Your task to perform on an android device: Go to CNN.com Image 0: 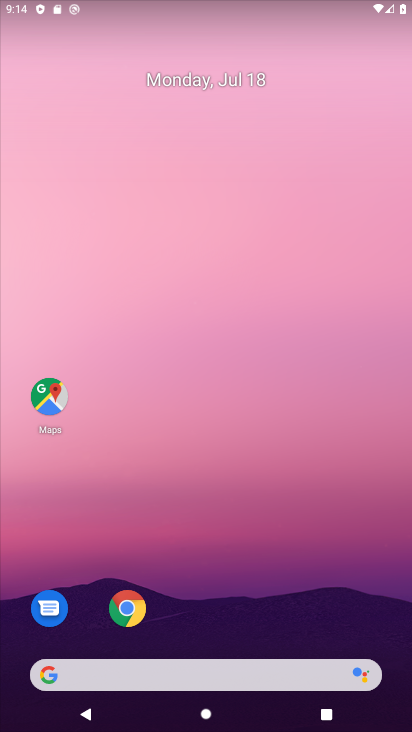
Step 0: click (119, 607)
Your task to perform on an android device: Go to CNN.com Image 1: 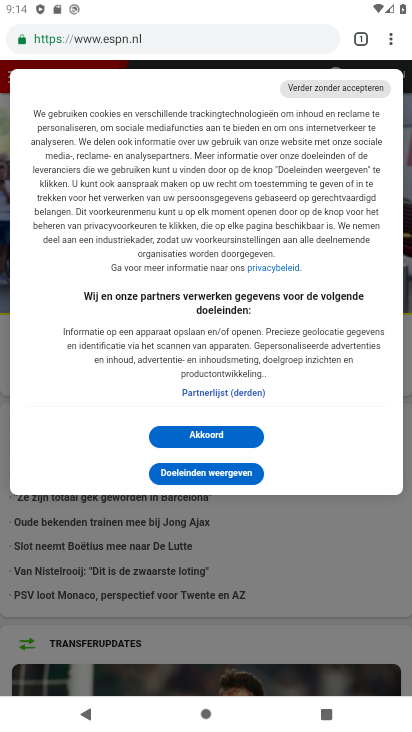
Step 1: click (165, 42)
Your task to perform on an android device: Go to CNN.com Image 2: 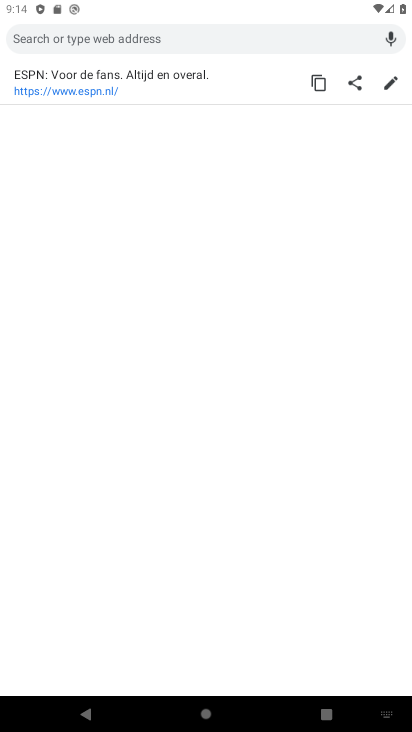
Step 2: type ""
Your task to perform on an android device: Go to CNN.com Image 3: 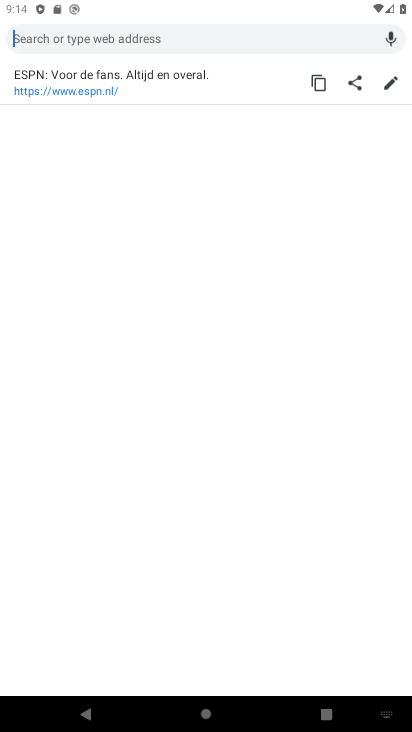
Step 3: type "CNN.com"
Your task to perform on an android device: Go to CNN.com Image 4: 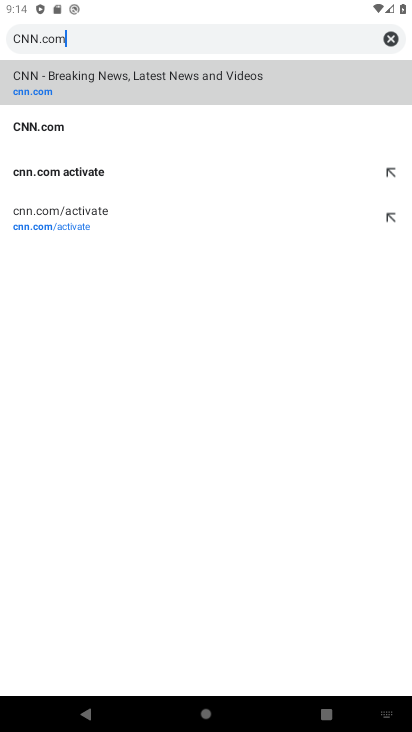
Step 4: click (34, 127)
Your task to perform on an android device: Go to CNN.com Image 5: 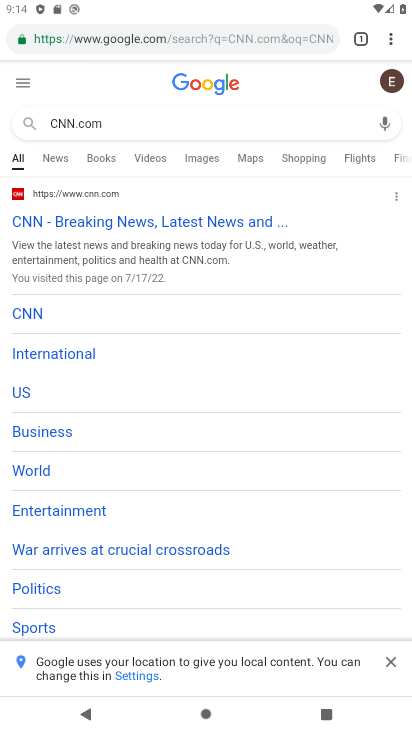
Step 5: task complete